Your task to perform on an android device: allow notifications from all sites in the chrome app Image 0: 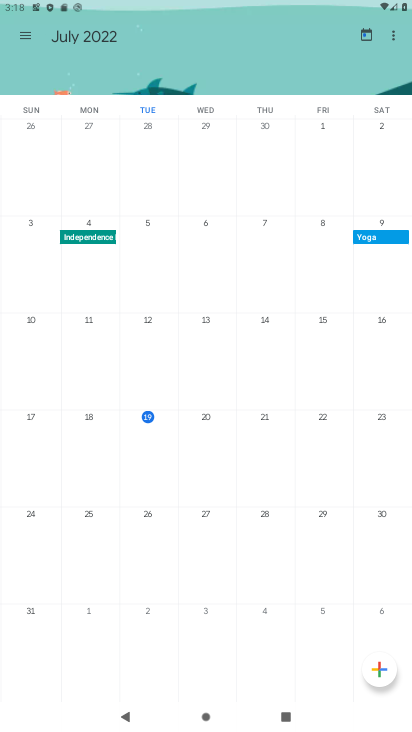
Step 0: press home button
Your task to perform on an android device: allow notifications from all sites in the chrome app Image 1: 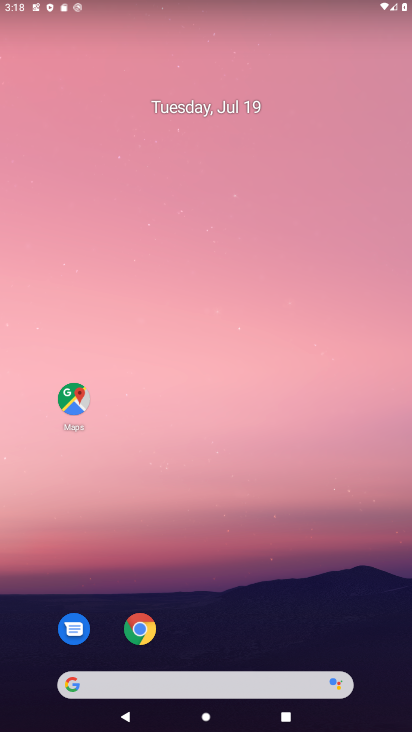
Step 1: drag from (219, 670) to (220, 184)
Your task to perform on an android device: allow notifications from all sites in the chrome app Image 2: 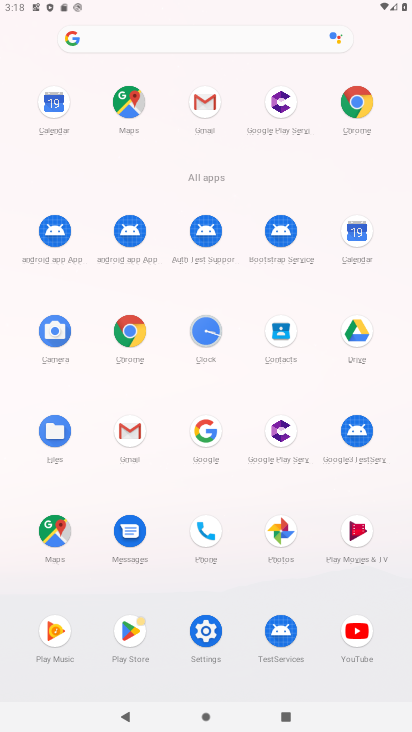
Step 2: click (118, 336)
Your task to perform on an android device: allow notifications from all sites in the chrome app Image 3: 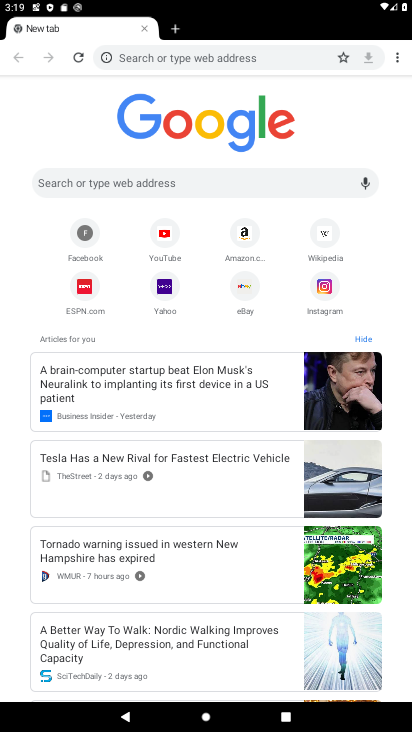
Step 3: click (397, 57)
Your task to perform on an android device: allow notifications from all sites in the chrome app Image 4: 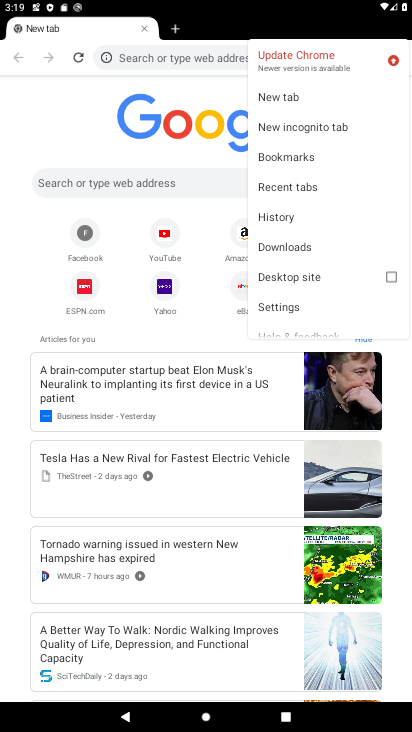
Step 4: click (275, 293)
Your task to perform on an android device: allow notifications from all sites in the chrome app Image 5: 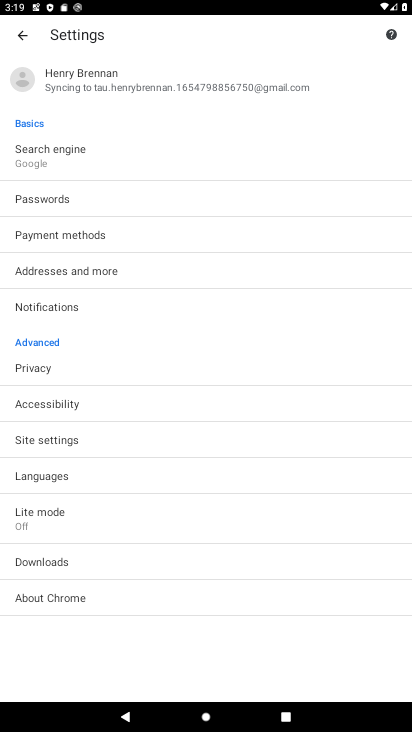
Step 5: click (55, 452)
Your task to perform on an android device: allow notifications from all sites in the chrome app Image 6: 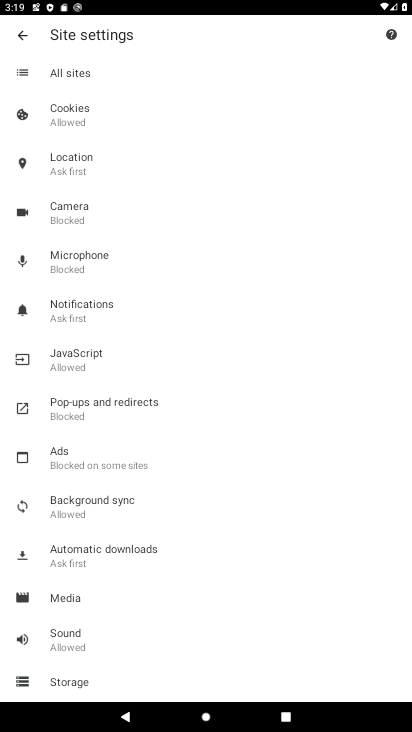
Step 6: click (71, 346)
Your task to perform on an android device: allow notifications from all sites in the chrome app Image 7: 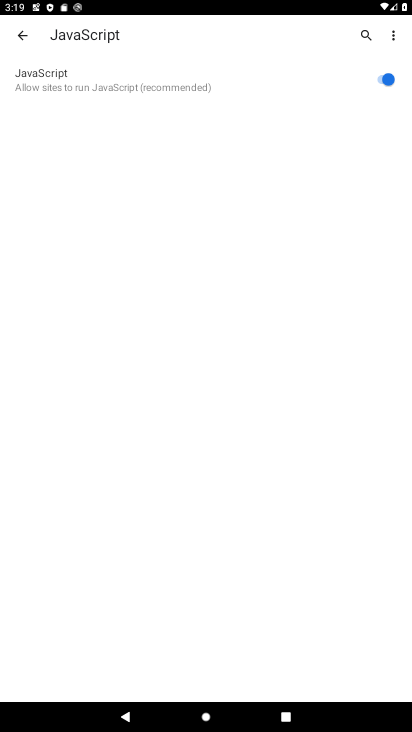
Step 7: click (21, 33)
Your task to perform on an android device: allow notifications from all sites in the chrome app Image 8: 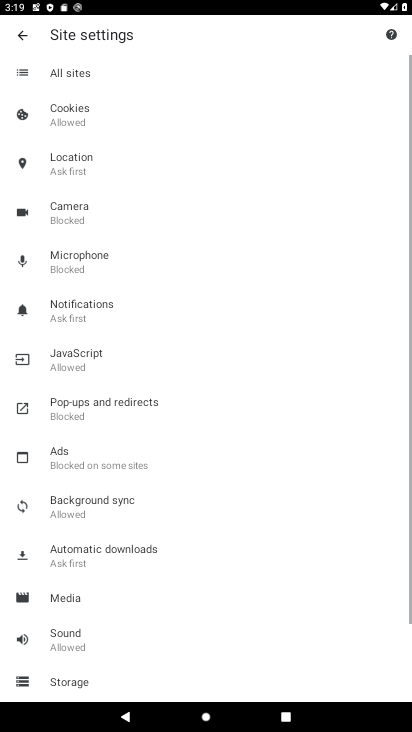
Step 8: click (65, 313)
Your task to perform on an android device: allow notifications from all sites in the chrome app Image 9: 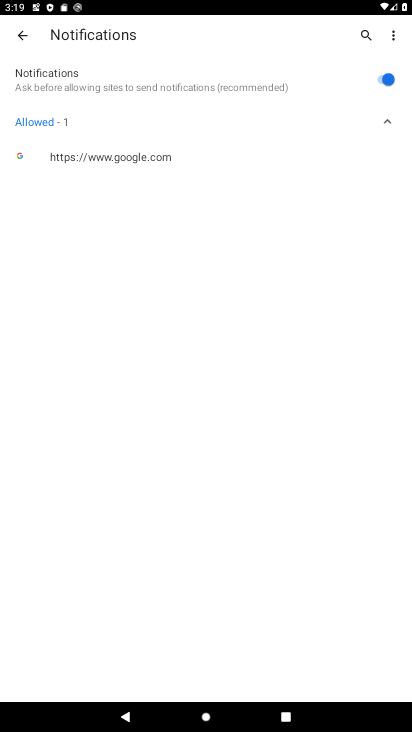
Step 9: task complete